Your task to perform on an android device: Search for dining sets on article.com Image 0: 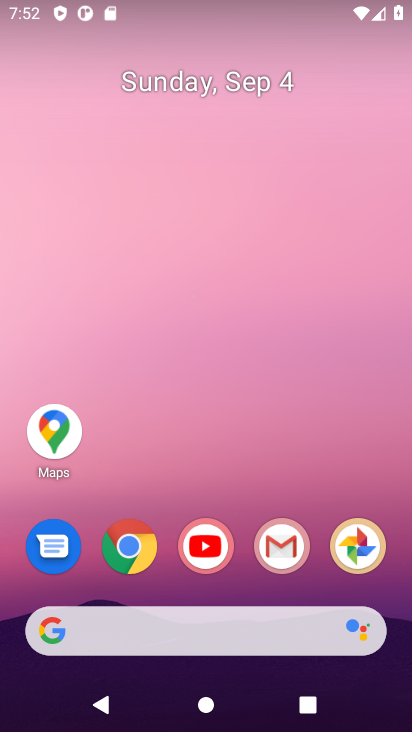
Step 0: click (132, 547)
Your task to perform on an android device: Search for dining sets on article.com Image 1: 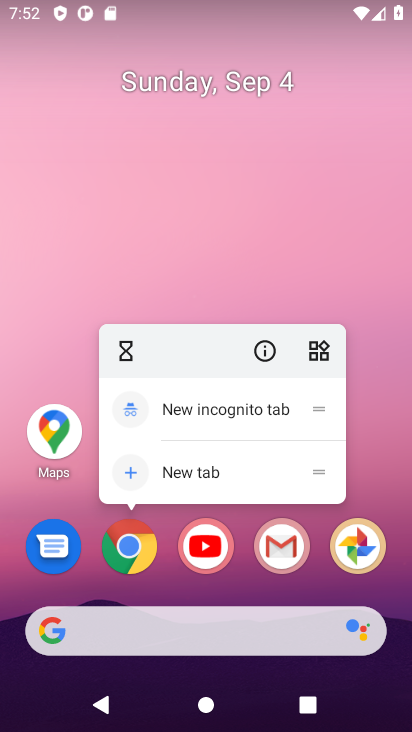
Step 1: click (132, 547)
Your task to perform on an android device: Search for dining sets on article.com Image 2: 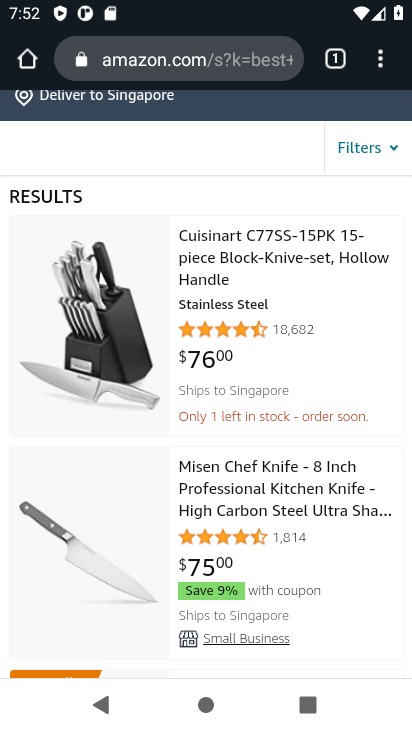
Step 2: click (221, 65)
Your task to perform on an android device: Search for dining sets on article.com Image 3: 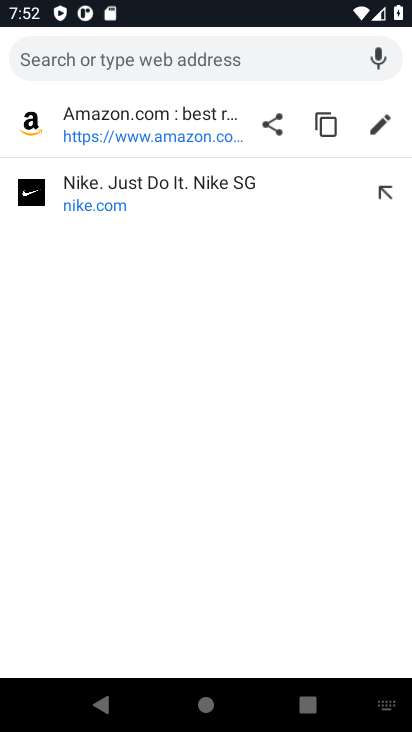
Step 3: type "article.com"
Your task to perform on an android device: Search for dining sets on article.com Image 4: 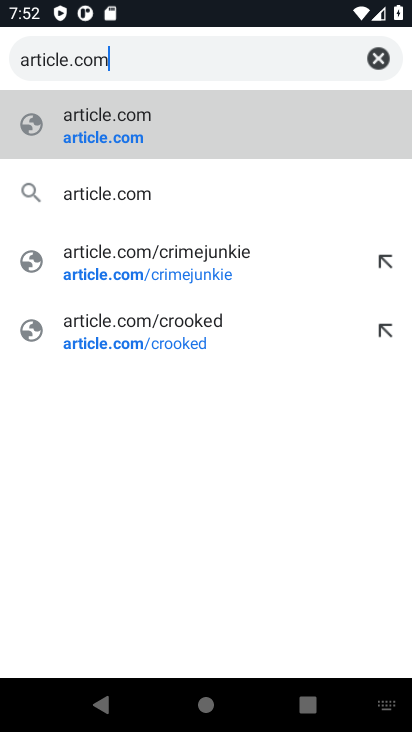
Step 4: click (109, 137)
Your task to perform on an android device: Search for dining sets on article.com Image 5: 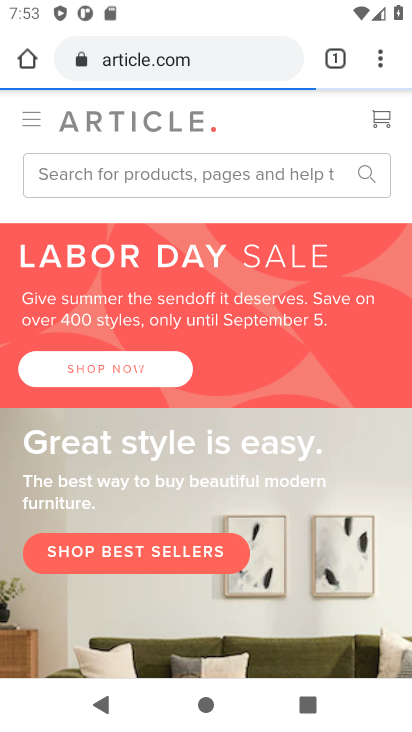
Step 5: click (150, 172)
Your task to perform on an android device: Search for dining sets on article.com Image 6: 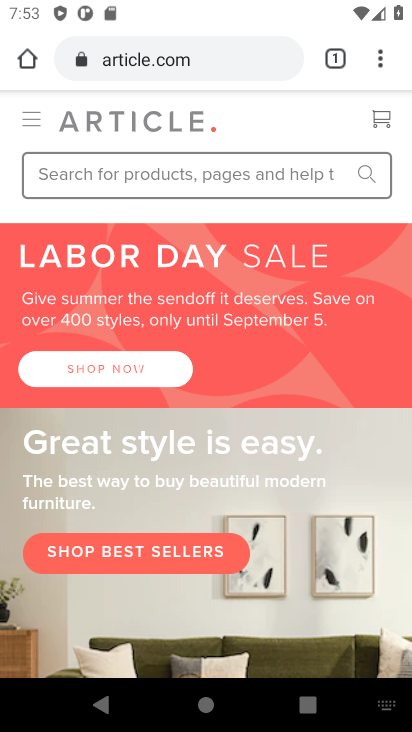
Step 6: type "dining sets"
Your task to perform on an android device: Search for dining sets on article.com Image 7: 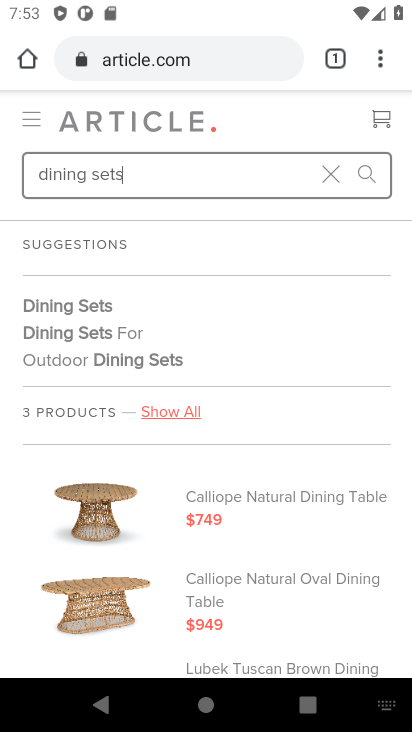
Step 7: click (63, 311)
Your task to perform on an android device: Search for dining sets on article.com Image 8: 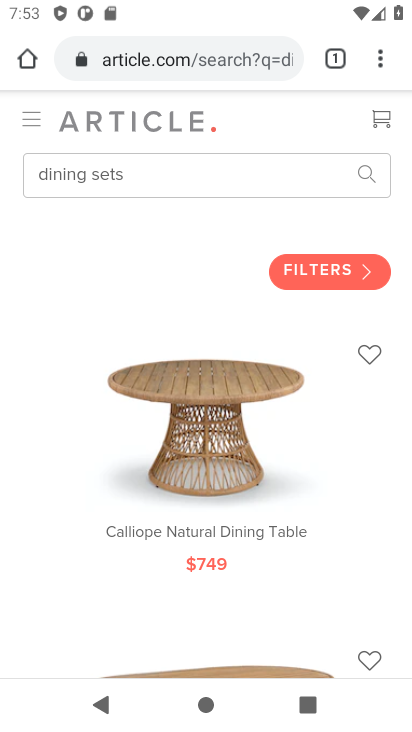
Step 8: task complete